Your task to perform on an android device: turn on bluetooth scan Image 0: 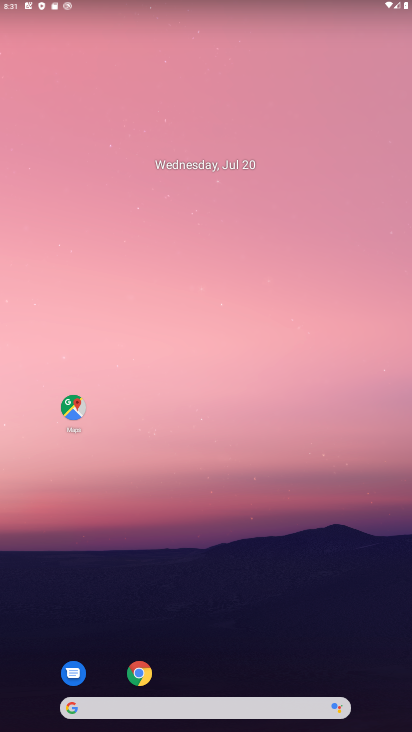
Step 0: drag from (198, 653) to (353, 103)
Your task to perform on an android device: turn on bluetooth scan Image 1: 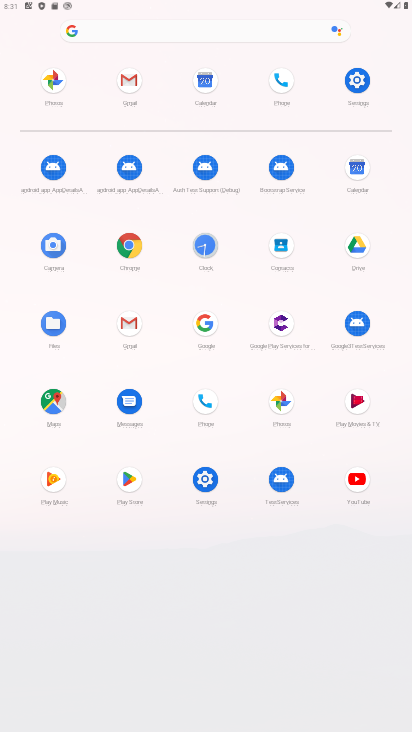
Step 1: click (203, 477)
Your task to perform on an android device: turn on bluetooth scan Image 2: 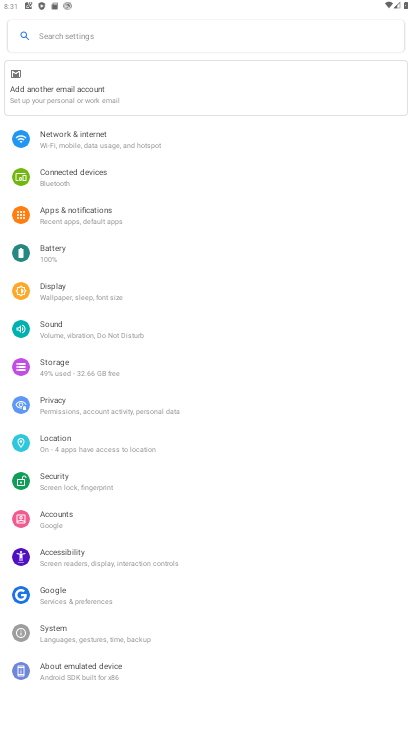
Step 2: click (82, 448)
Your task to perform on an android device: turn on bluetooth scan Image 3: 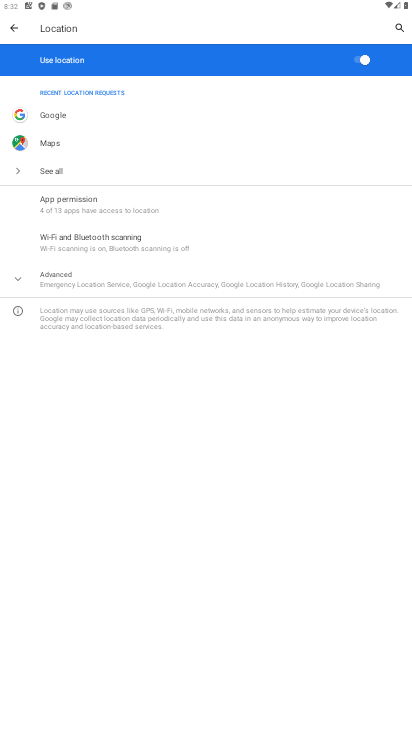
Step 3: click (128, 230)
Your task to perform on an android device: turn on bluetooth scan Image 4: 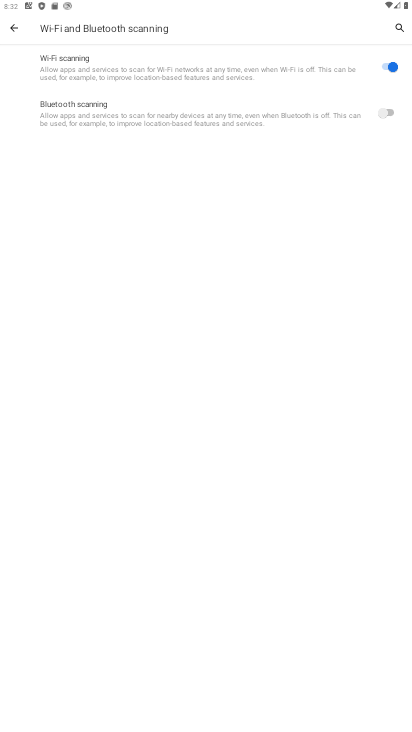
Step 4: click (386, 113)
Your task to perform on an android device: turn on bluetooth scan Image 5: 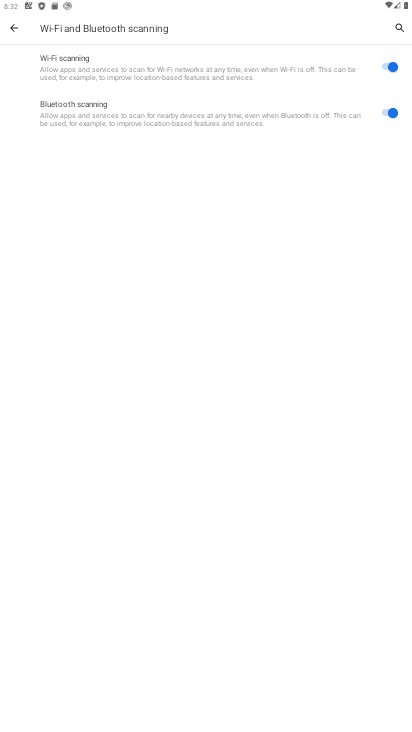
Step 5: click (378, 99)
Your task to perform on an android device: turn on bluetooth scan Image 6: 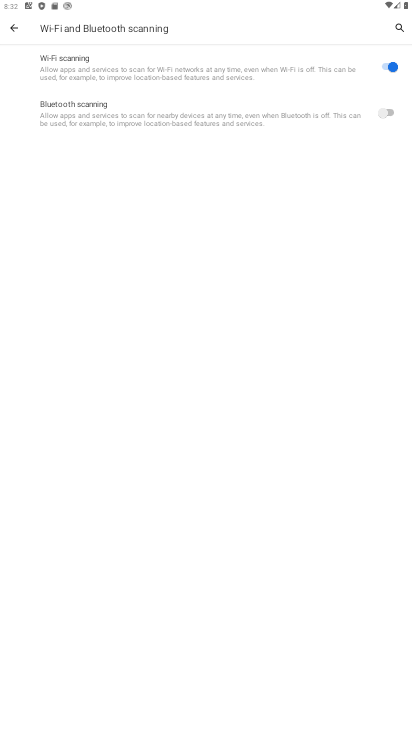
Step 6: click (336, 106)
Your task to perform on an android device: turn on bluetooth scan Image 7: 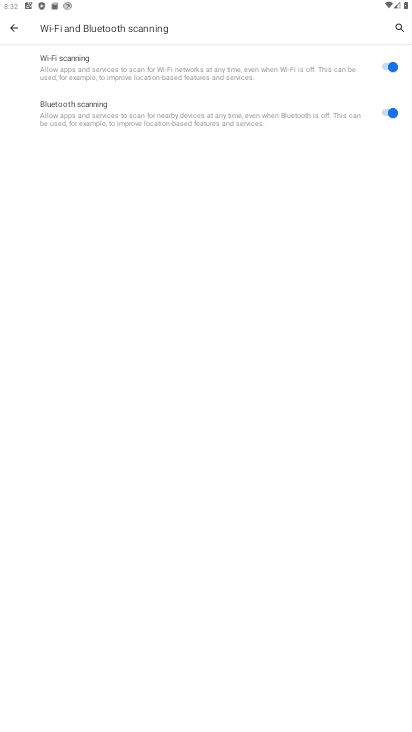
Step 7: task complete